Your task to perform on an android device: clear all cookies in the chrome app Image 0: 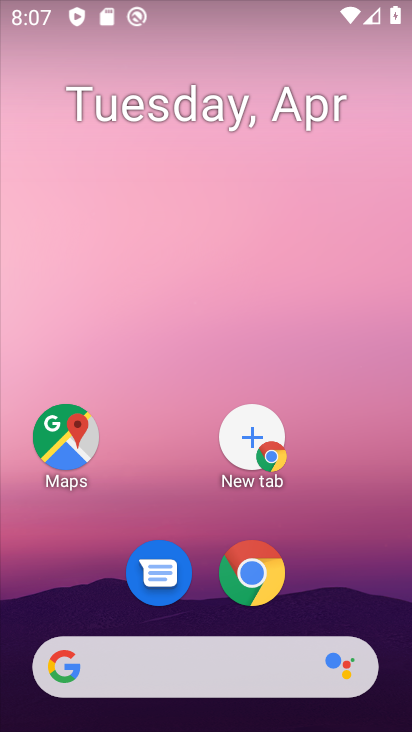
Step 0: click (223, 561)
Your task to perform on an android device: clear all cookies in the chrome app Image 1: 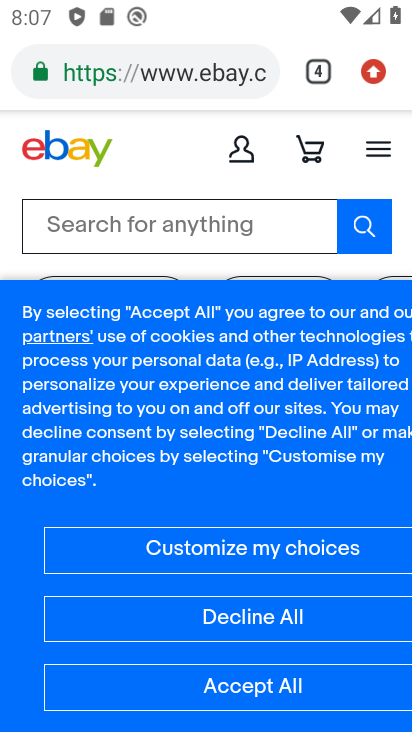
Step 1: click (380, 80)
Your task to perform on an android device: clear all cookies in the chrome app Image 2: 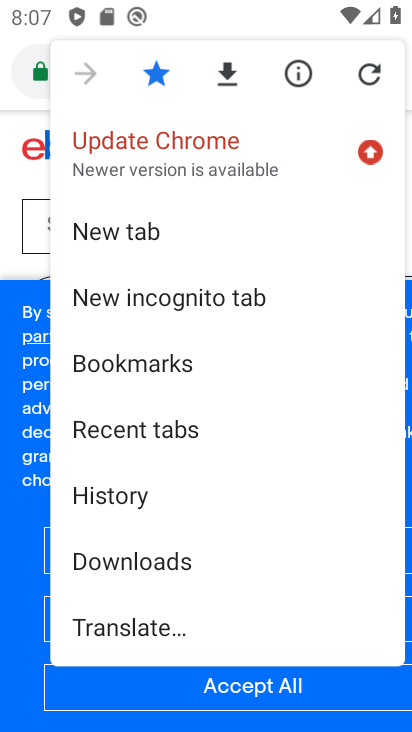
Step 2: click (129, 507)
Your task to perform on an android device: clear all cookies in the chrome app Image 3: 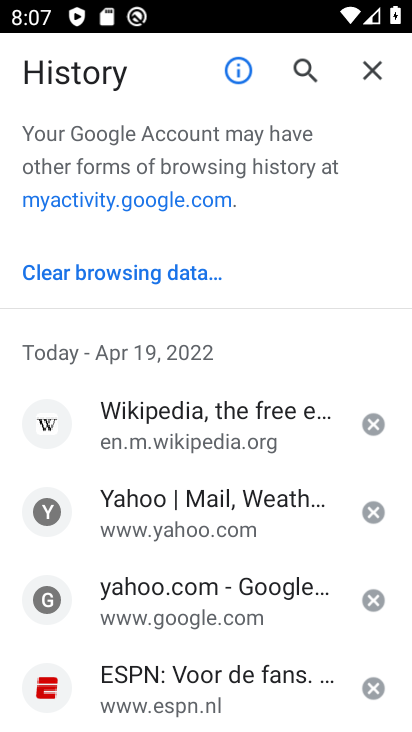
Step 3: click (133, 271)
Your task to perform on an android device: clear all cookies in the chrome app Image 4: 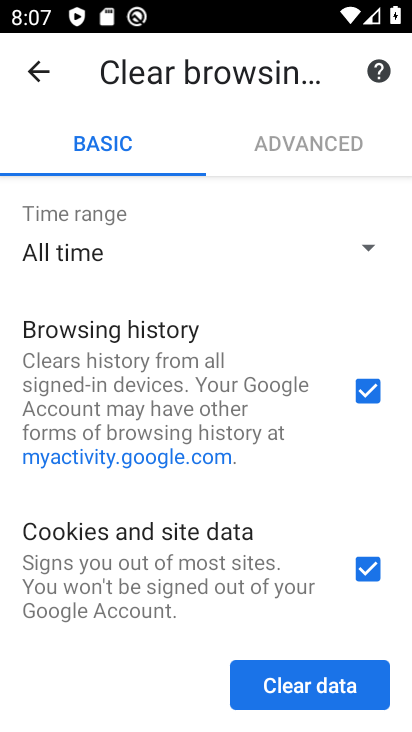
Step 4: click (378, 383)
Your task to perform on an android device: clear all cookies in the chrome app Image 5: 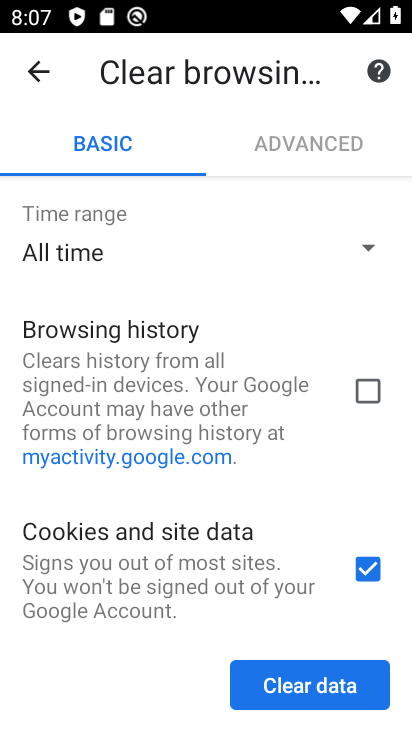
Step 5: drag from (253, 603) to (296, 220)
Your task to perform on an android device: clear all cookies in the chrome app Image 6: 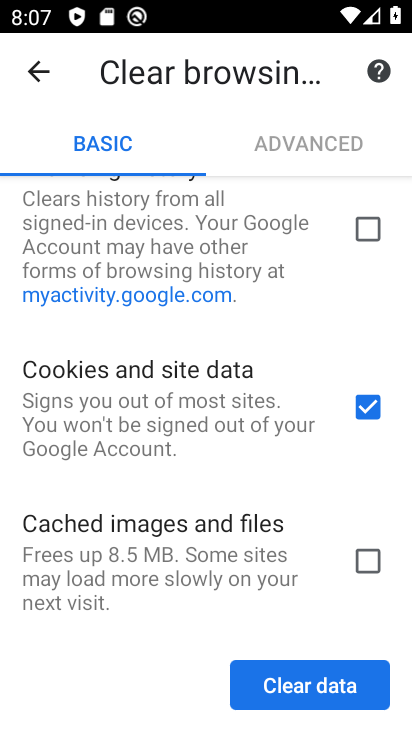
Step 6: click (345, 677)
Your task to perform on an android device: clear all cookies in the chrome app Image 7: 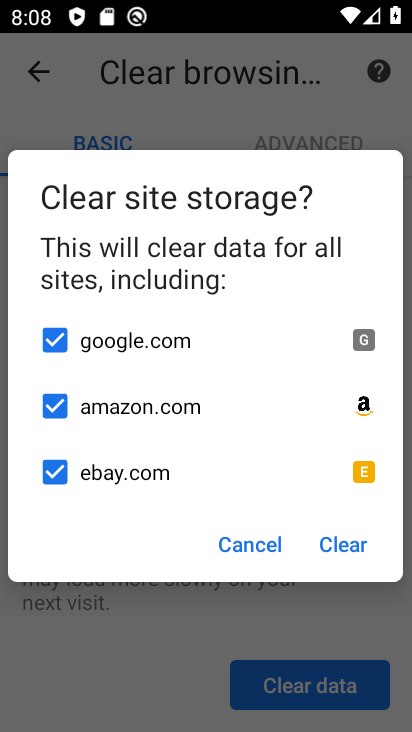
Step 7: click (323, 555)
Your task to perform on an android device: clear all cookies in the chrome app Image 8: 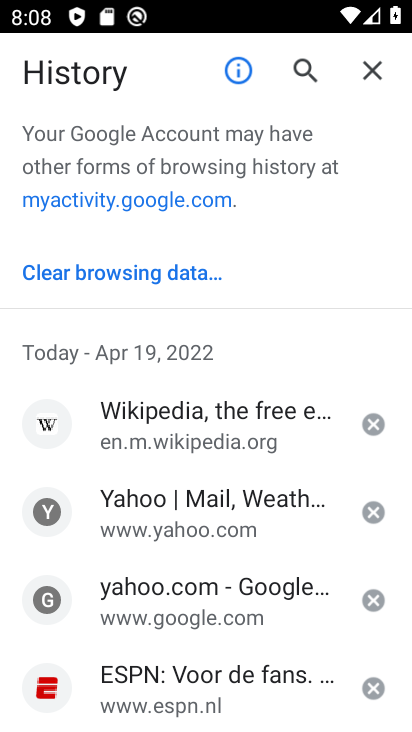
Step 8: task complete